Your task to perform on an android device: set an alarm Image 0: 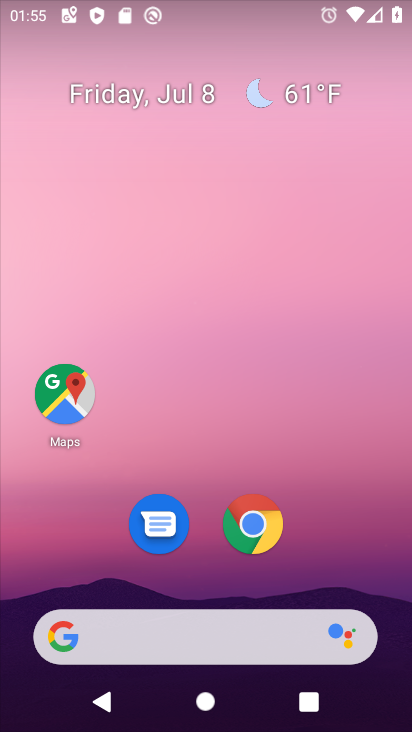
Step 0: drag from (312, 532) to (296, 67)
Your task to perform on an android device: set an alarm Image 1: 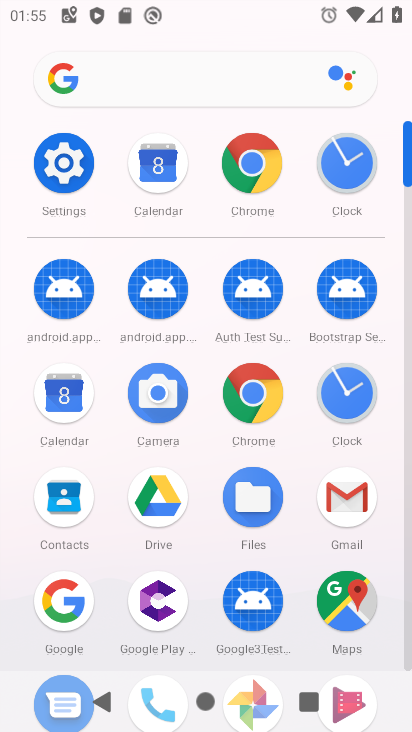
Step 1: click (366, 167)
Your task to perform on an android device: set an alarm Image 2: 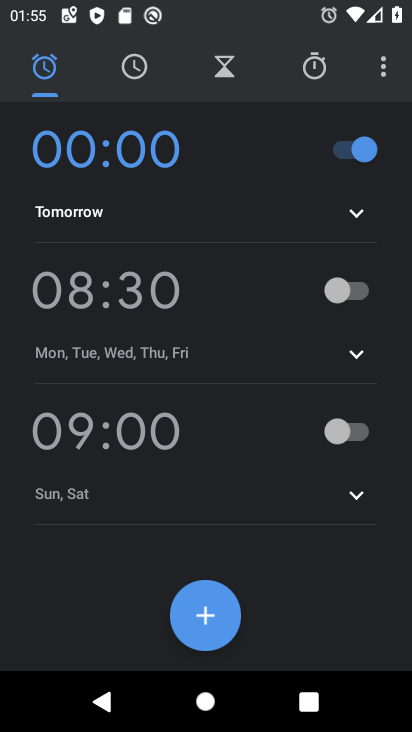
Step 2: click (202, 611)
Your task to perform on an android device: set an alarm Image 3: 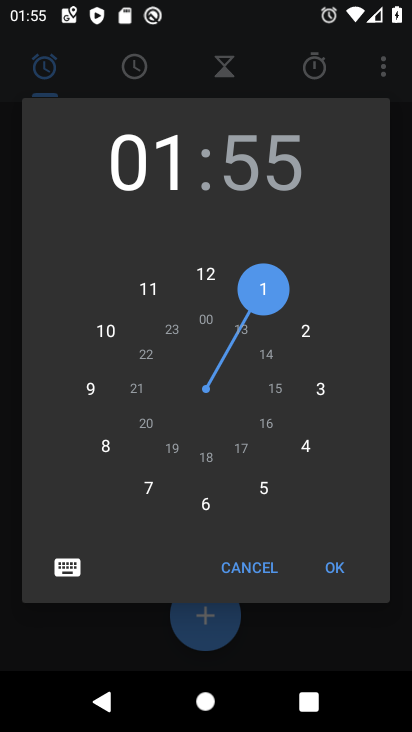
Step 3: click (308, 334)
Your task to perform on an android device: set an alarm Image 4: 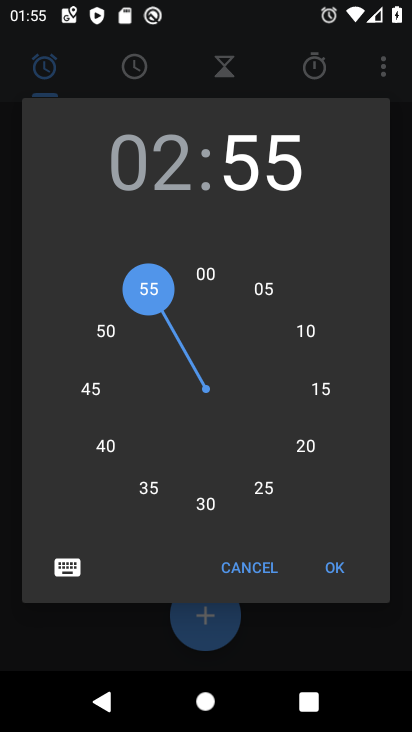
Step 4: click (212, 277)
Your task to perform on an android device: set an alarm Image 5: 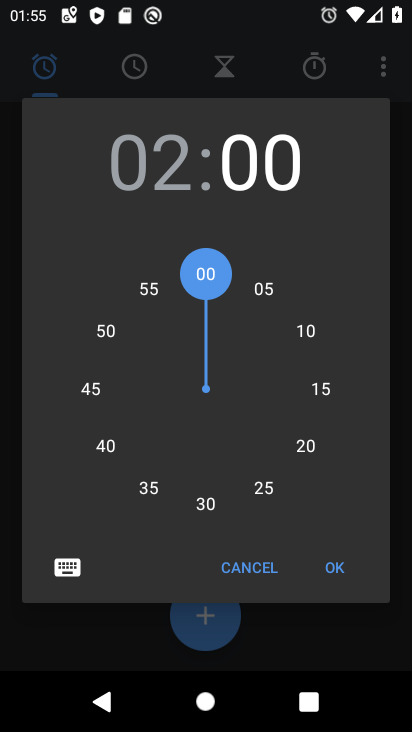
Step 5: click (330, 570)
Your task to perform on an android device: set an alarm Image 6: 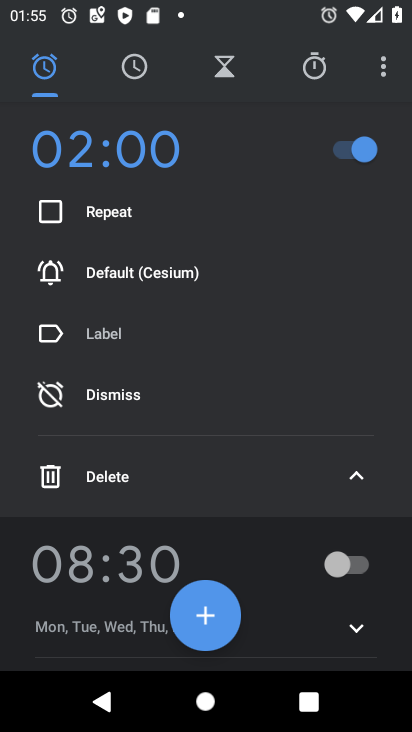
Step 6: task complete